Your task to perform on an android device: Open Chrome and go to settings Image 0: 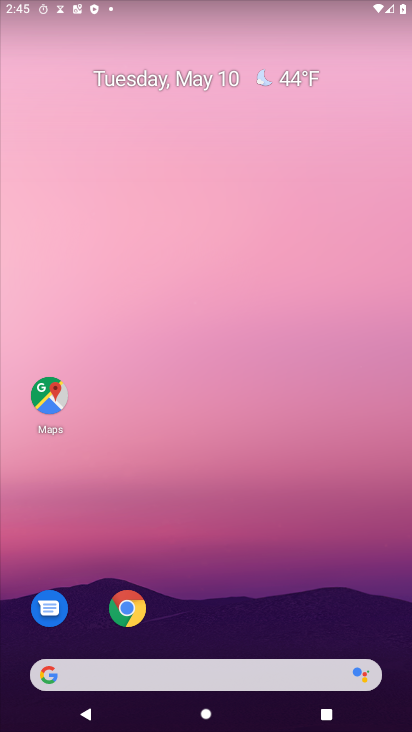
Step 0: click (136, 611)
Your task to perform on an android device: Open Chrome and go to settings Image 1: 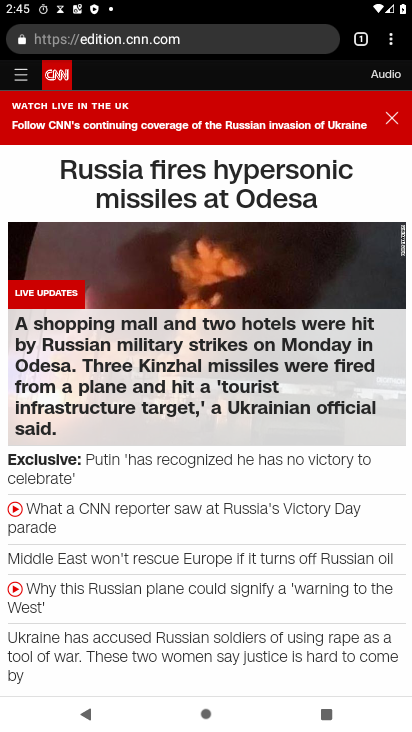
Step 1: click (394, 44)
Your task to perform on an android device: Open Chrome and go to settings Image 2: 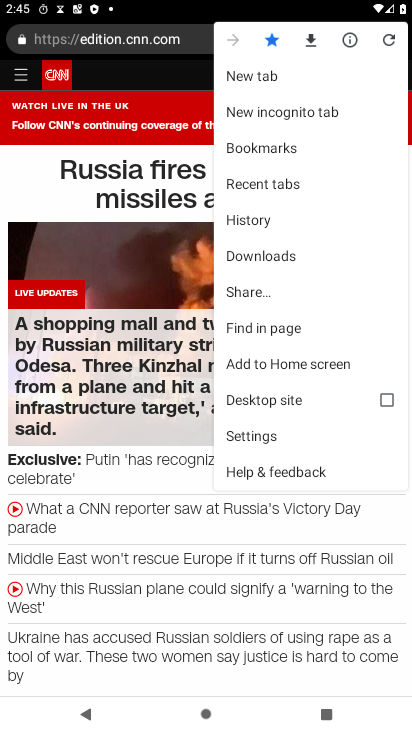
Step 2: click (234, 430)
Your task to perform on an android device: Open Chrome and go to settings Image 3: 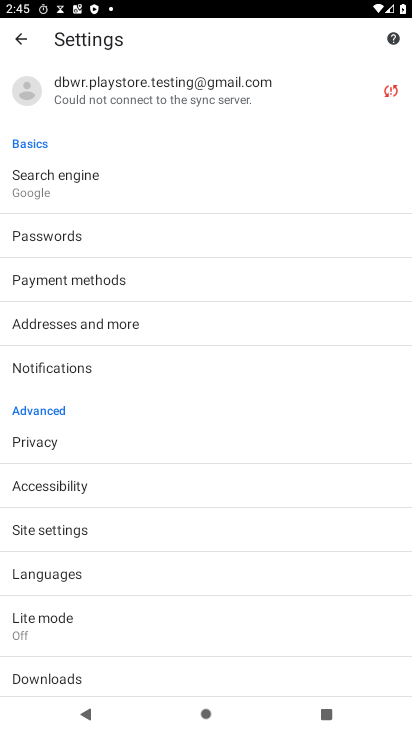
Step 3: task complete